Your task to perform on an android device: turn on wifi Image 0: 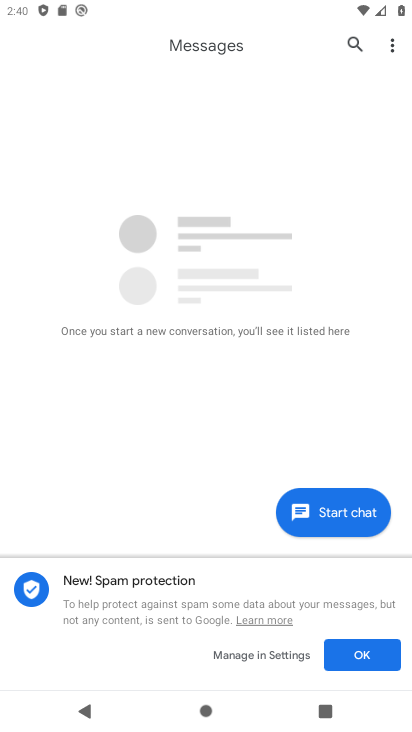
Step 0: press home button
Your task to perform on an android device: turn on wifi Image 1: 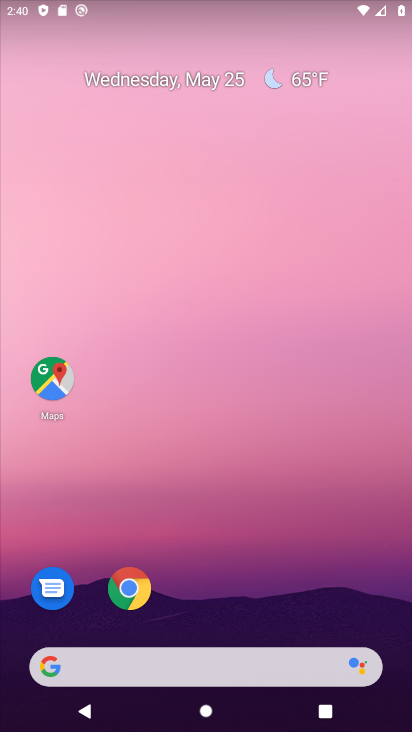
Step 1: drag from (209, 590) to (274, 323)
Your task to perform on an android device: turn on wifi Image 2: 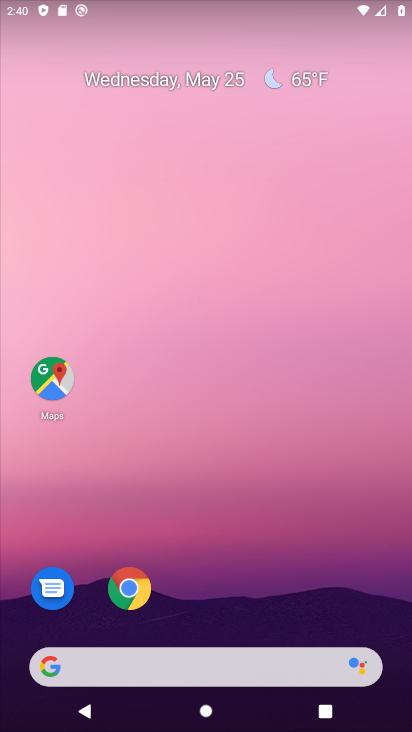
Step 2: drag from (163, 632) to (263, 121)
Your task to perform on an android device: turn on wifi Image 3: 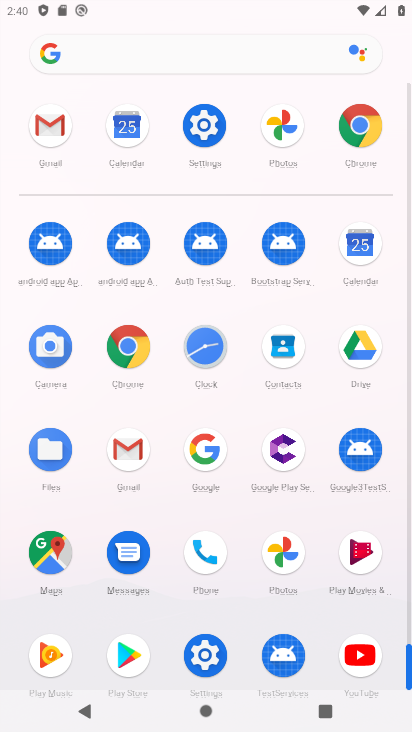
Step 3: click (197, 129)
Your task to perform on an android device: turn on wifi Image 4: 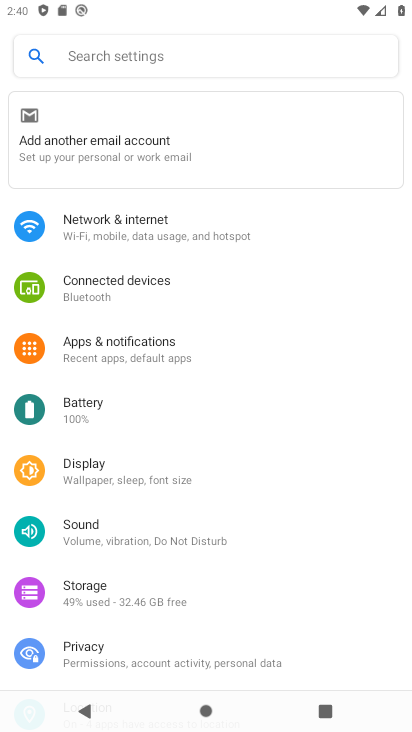
Step 4: click (152, 239)
Your task to perform on an android device: turn on wifi Image 5: 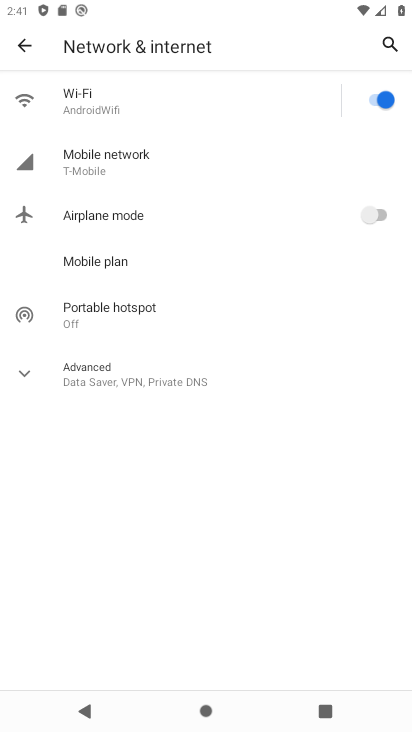
Step 5: task complete